Your task to perform on an android device: snooze an email in the gmail app Image 0: 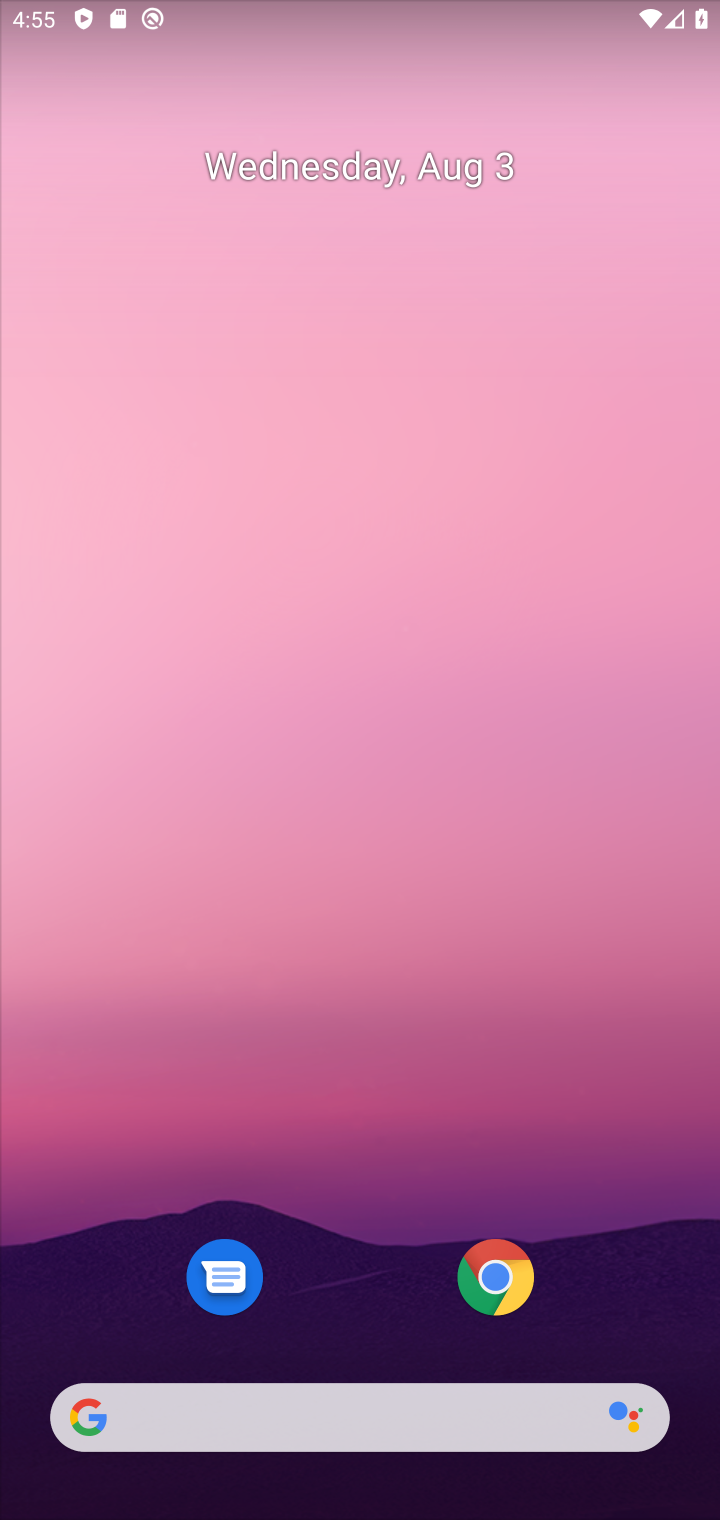
Step 0: drag from (375, 948) to (400, 184)
Your task to perform on an android device: snooze an email in the gmail app Image 1: 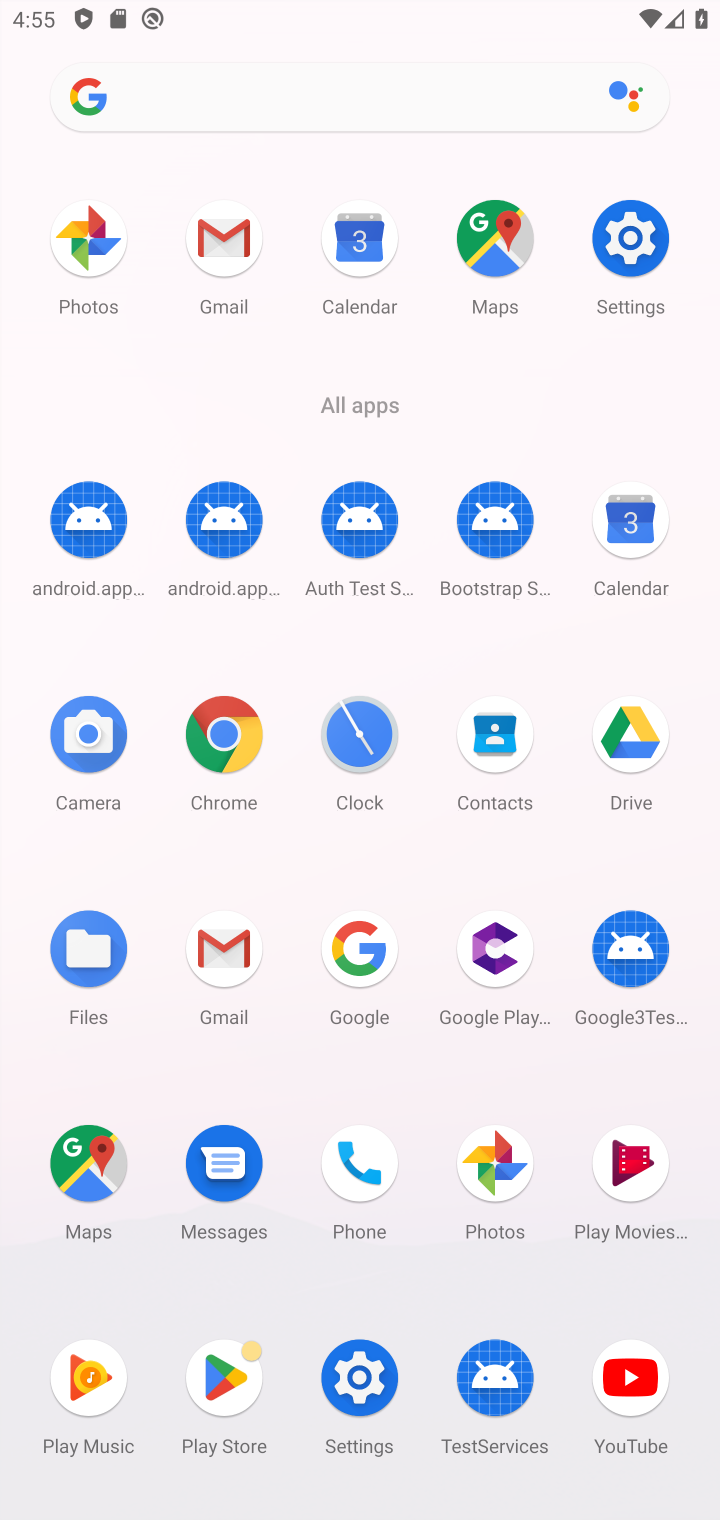
Step 1: click (204, 250)
Your task to perform on an android device: snooze an email in the gmail app Image 2: 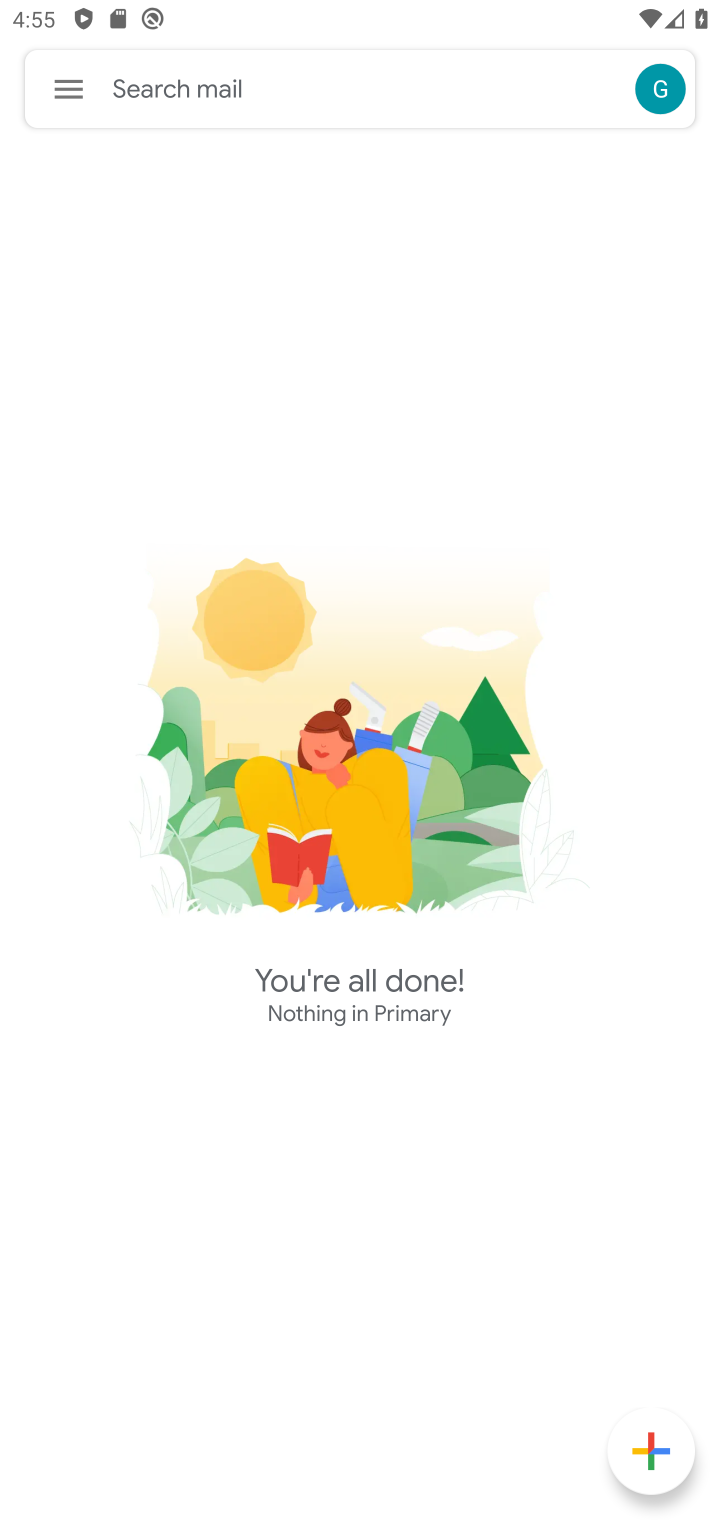
Step 2: click (67, 93)
Your task to perform on an android device: snooze an email in the gmail app Image 3: 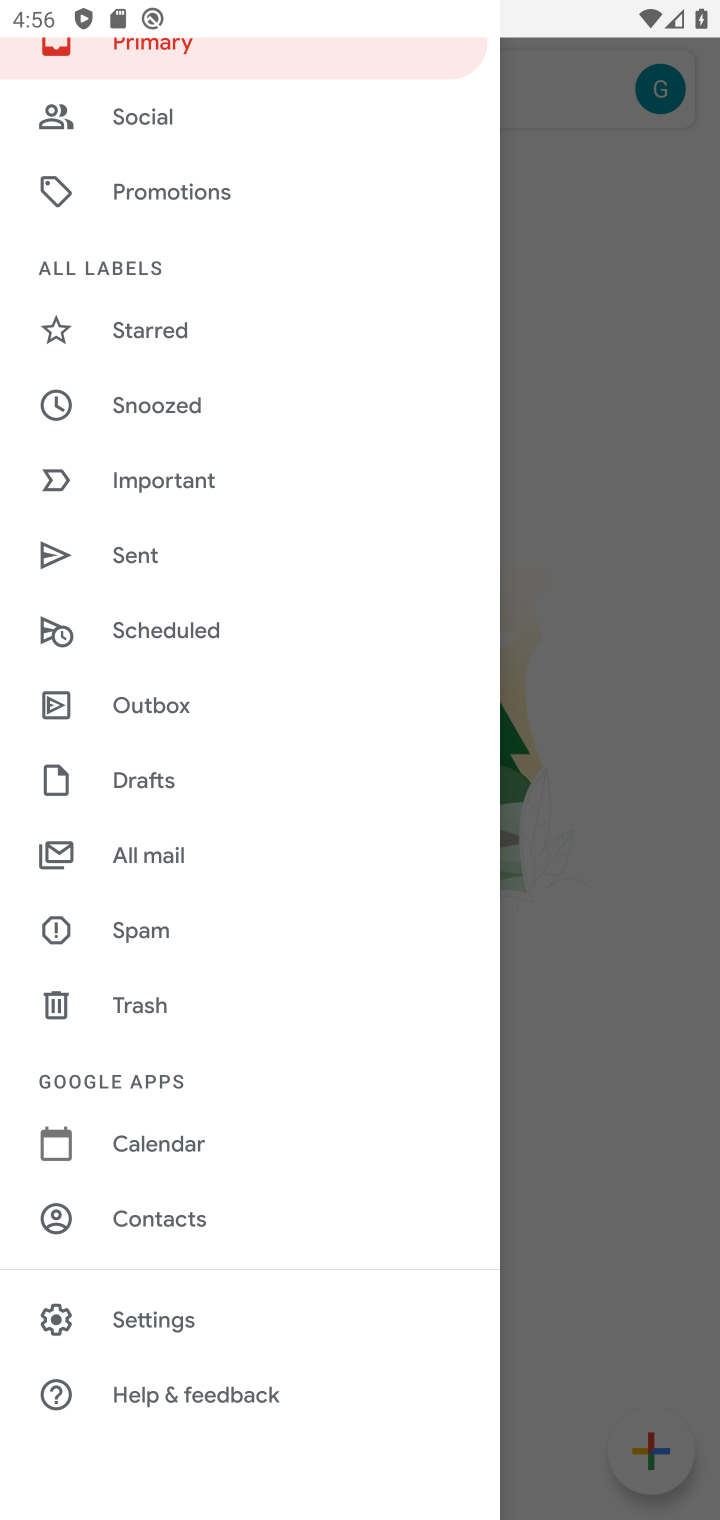
Step 3: click (145, 846)
Your task to perform on an android device: snooze an email in the gmail app Image 4: 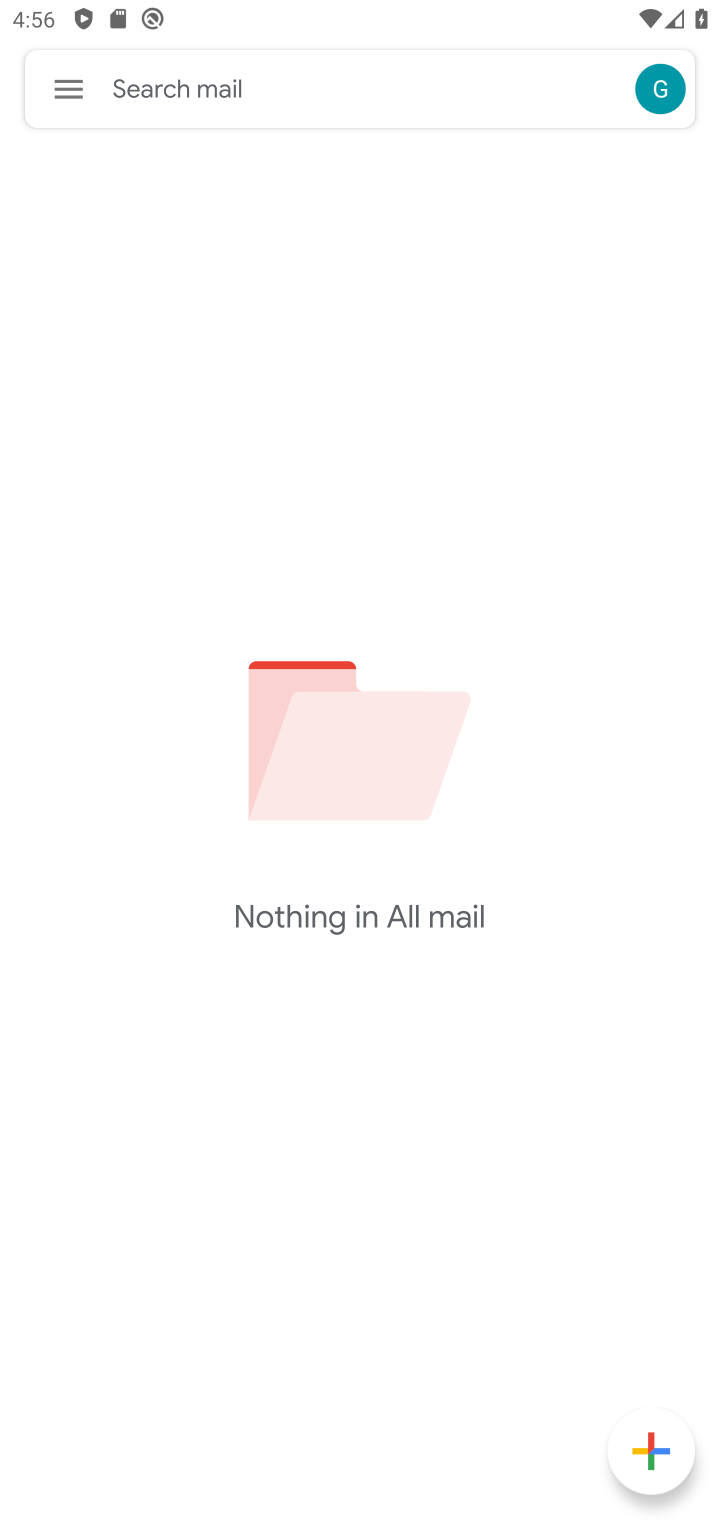
Step 4: task complete